Your task to perform on an android device: Show me recent news Image 0: 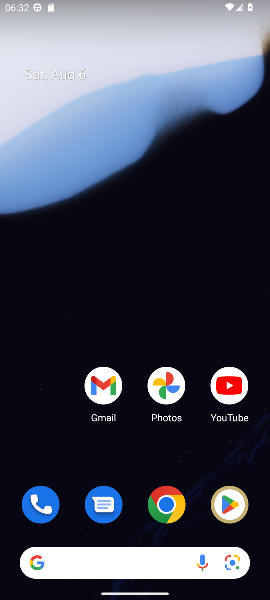
Step 0: drag from (102, 561) to (116, 171)
Your task to perform on an android device: Show me recent news Image 1: 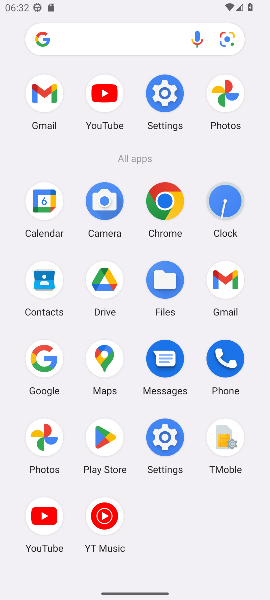
Step 1: click (162, 199)
Your task to perform on an android device: Show me recent news Image 2: 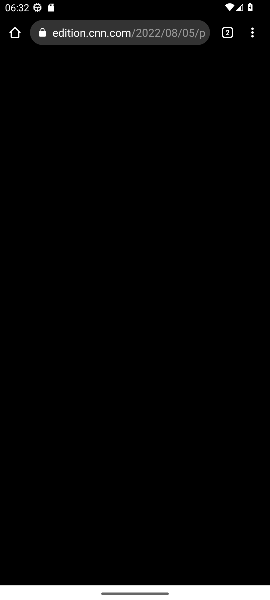
Step 2: click (168, 31)
Your task to perform on an android device: Show me recent news Image 3: 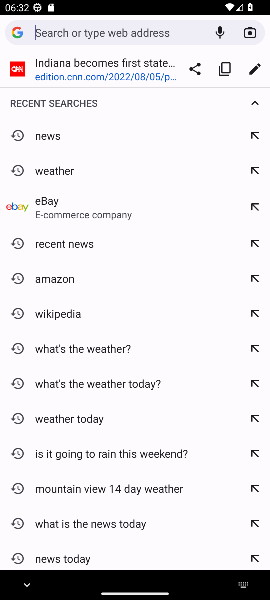
Step 3: type "recent news"
Your task to perform on an android device: Show me recent news Image 4: 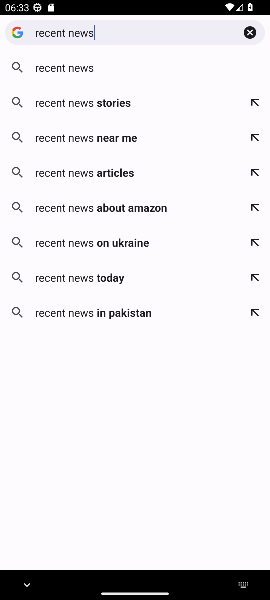
Step 4: click (83, 67)
Your task to perform on an android device: Show me recent news Image 5: 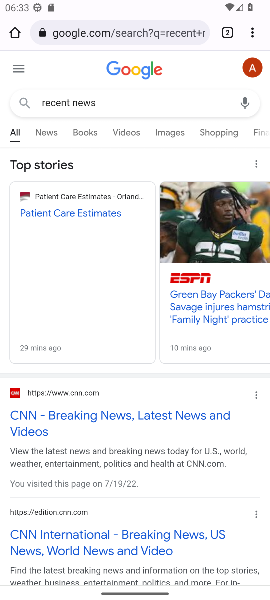
Step 5: click (207, 304)
Your task to perform on an android device: Show me recent news Image 6: 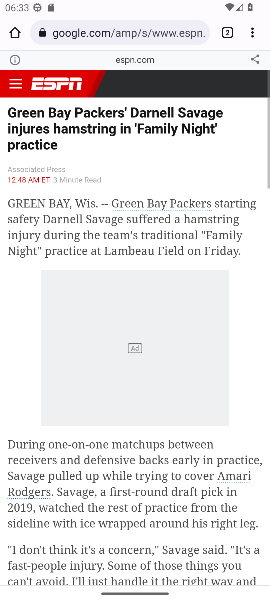
Step 6: task complete